Your task to perform on an android device: search for starred emails in the gmail app Image 0: 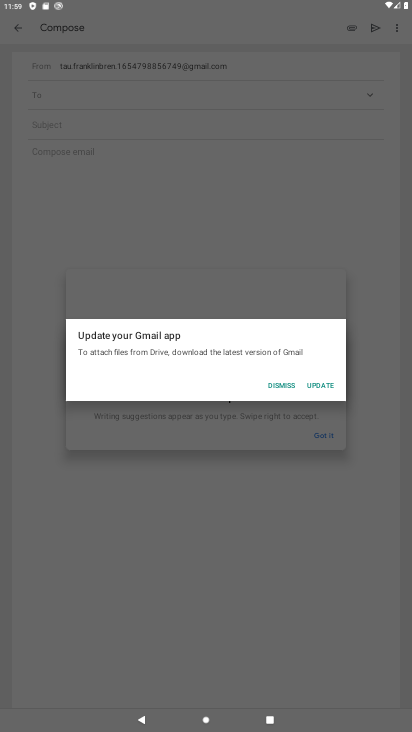
Step 0: press home button
Your task to perform on an android device: search for starred emails in the gmail app Image 1: 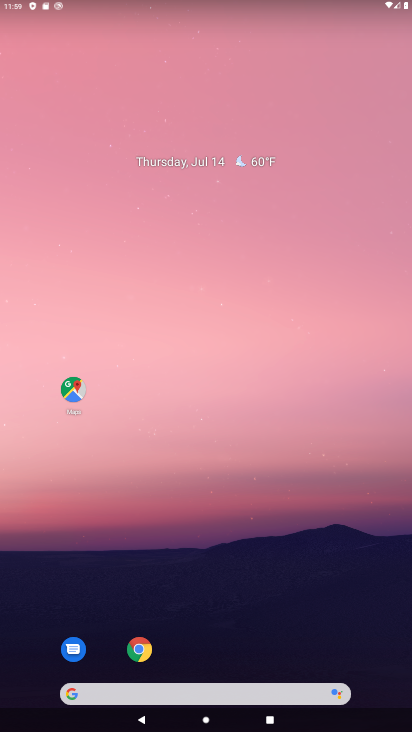
Step 1: drag from (221, 619) to (218, 195)
Your task to perform on an android device: search for starred emails in the gmail app Image 2: 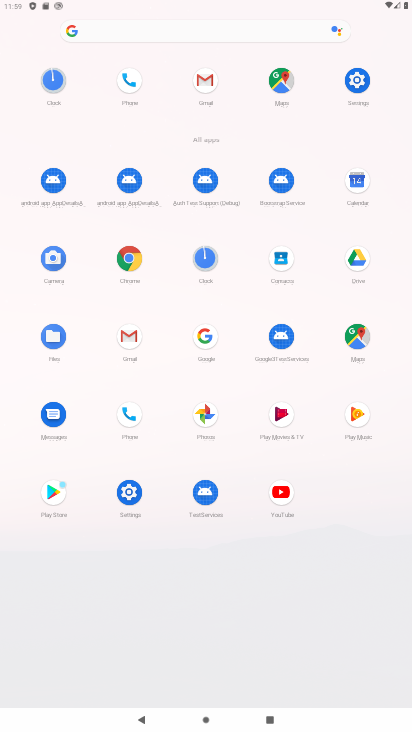
Step 2: click (205, 80)
Your task to perform on an android device: search for starred emails in the gmail app Image 3: 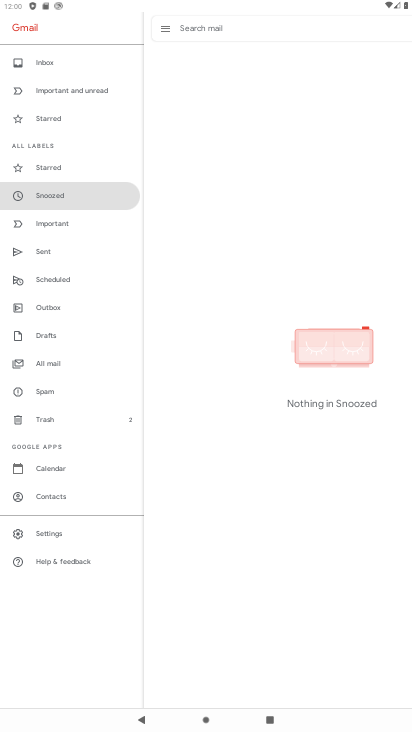
Step 3: task complete